Your task to perform on an android device: Open Yahoo.com Image 0: 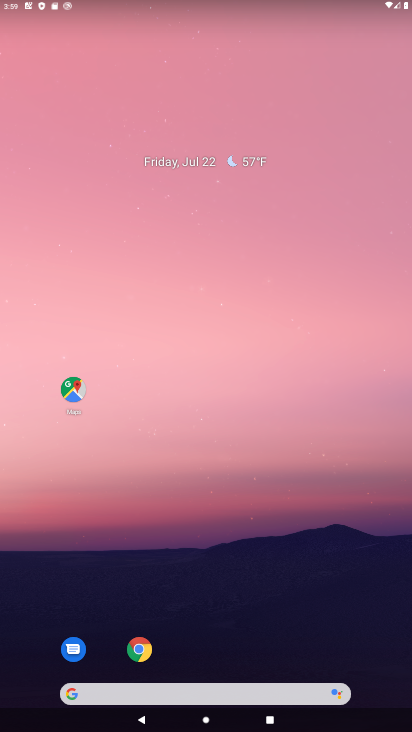
Step 0: click (95, 694)
Your task to perform on an android device: Open Yahoo.com Image 1: 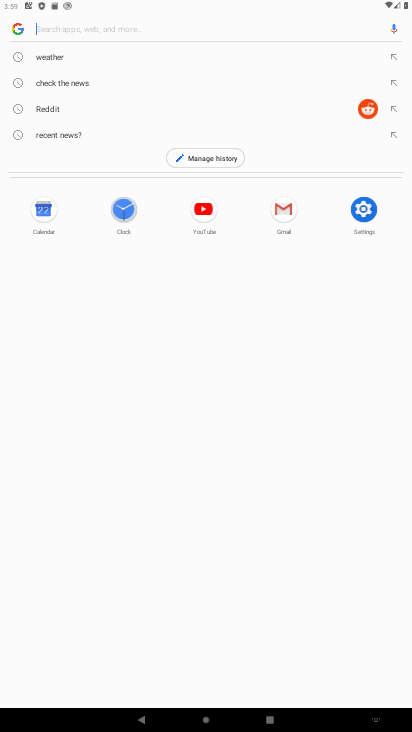
Step 1: type "Yahoo.com"
Your task to perform on an android device: Open Yahoo.com Image 2: 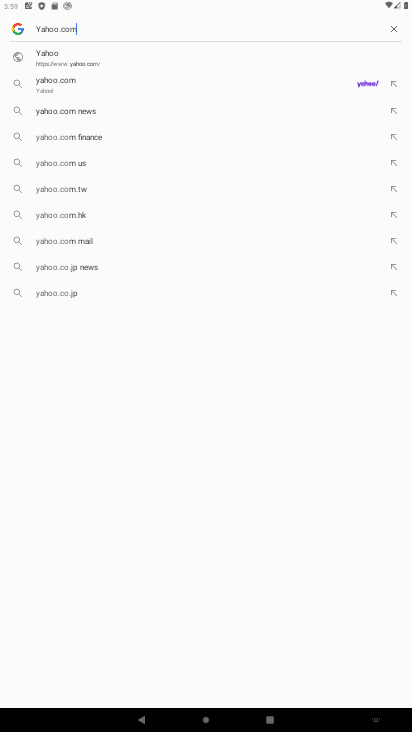
Step 2: type ""
Your task to perform on an android device: Open Yahoo.com Image 3: 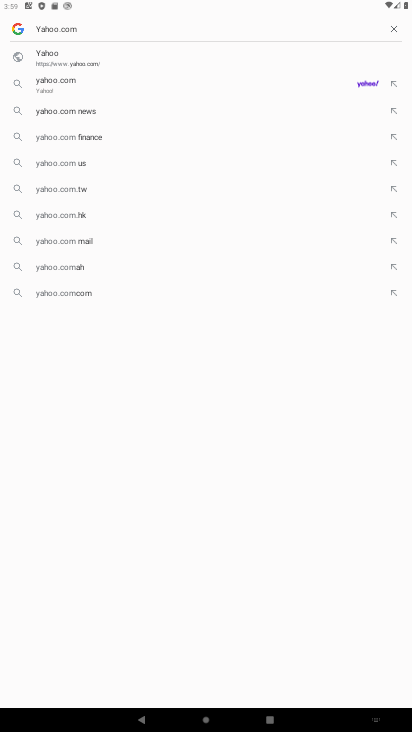
Step 3: click (41, 55)
Your task to perform on an android device: Open Yahoo.com Image 4: 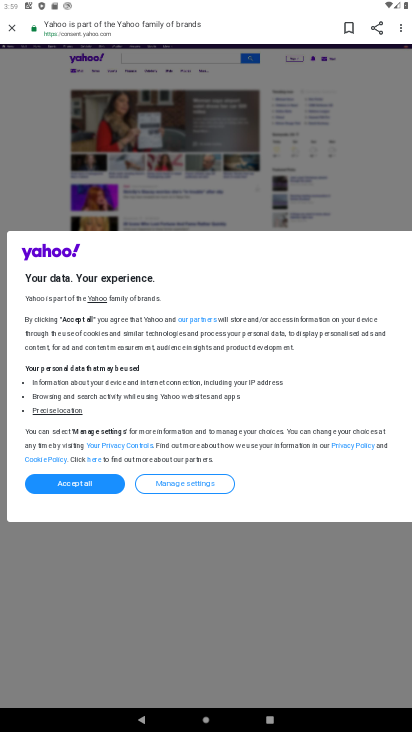
Step 4: task complete